Your task to perform on an android device: Search for seafood restaurants on Google Maps Image 0: 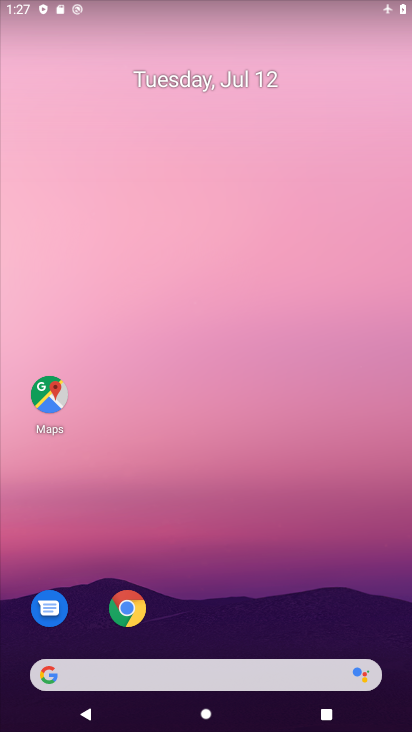
Step 0: click (45, 389)
Your task to perform on an android device: Search for seafood restaurants on Google Maps Image 1: 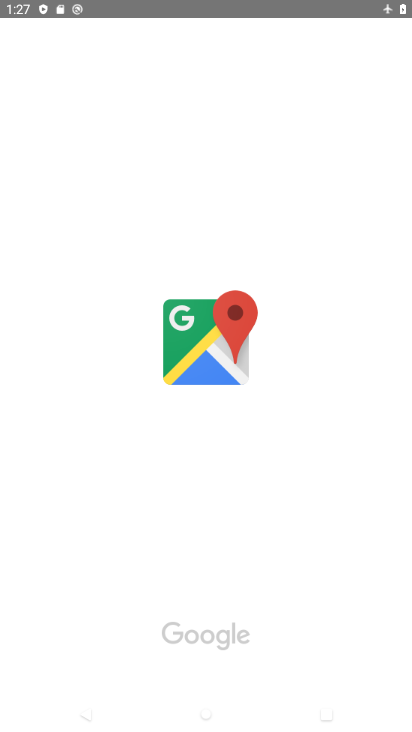
Step 1: click (46, 385)
Your task to perform on an android device: Search for seafood restaurants on Google Maps Image 2: 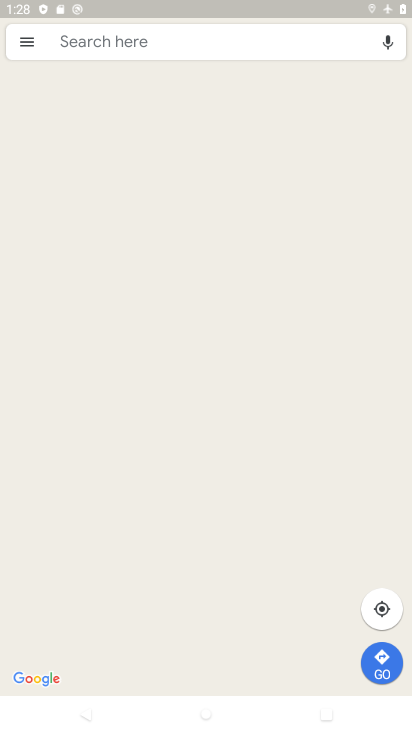
Step 2: click (22, 38)
Your task to perform on an android device: Search for seafood restaurants on Google Maps Image 3: 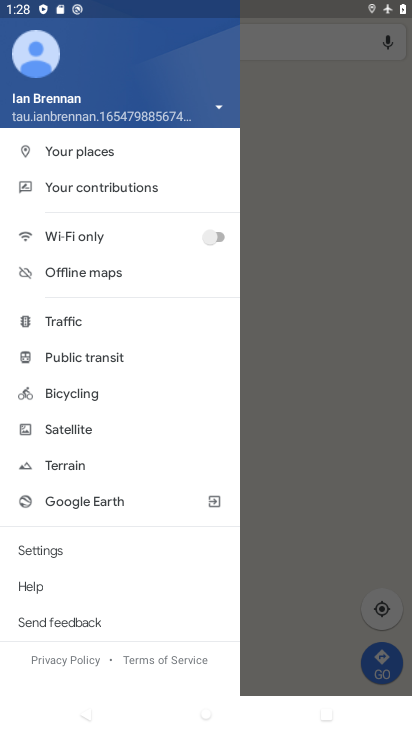
Step 3: click (338, 73)
Your task to perform on an android device: Search for seafood restaurants on Google Maps Image 4: 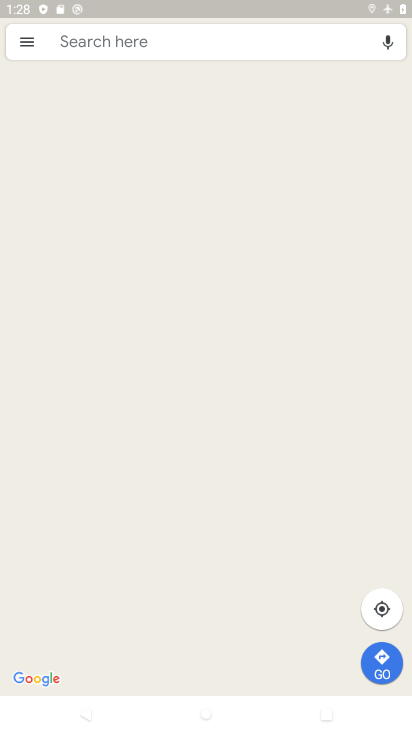
Step 4: click (301, 42)
Your task to perform on an android device: Search for seafood restaurants on Google Maps Image 5: 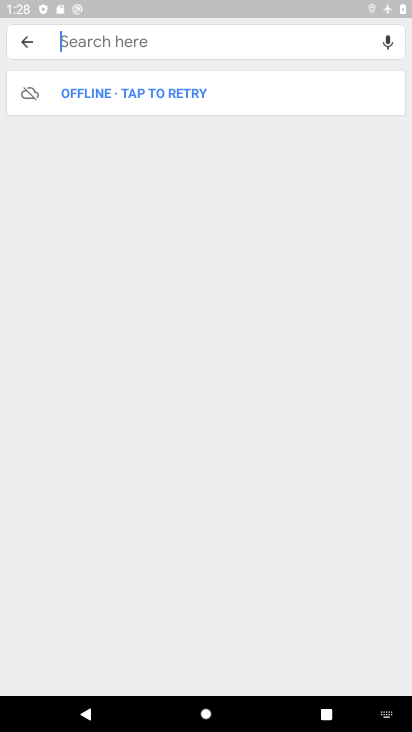
Step 5: drag from (390, 11) to (371, 619)
Your task to perform on an android device: Search for seafood restaurants on Google Maps Image 6: 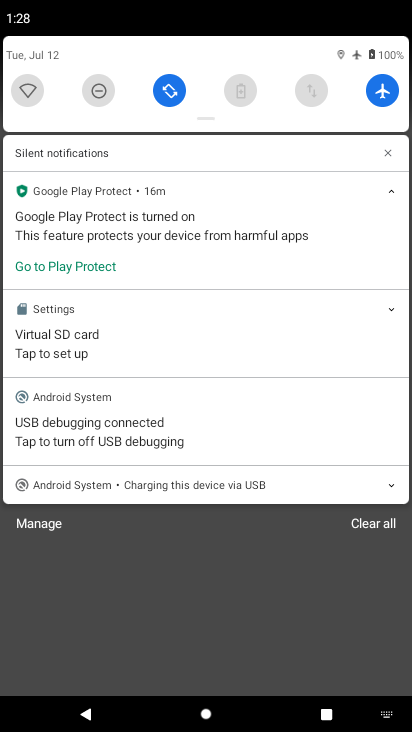
Step 6: click (378, 97)
Your task to perform on an android device: Search for seafood restaurants on Google Maps Image 7: 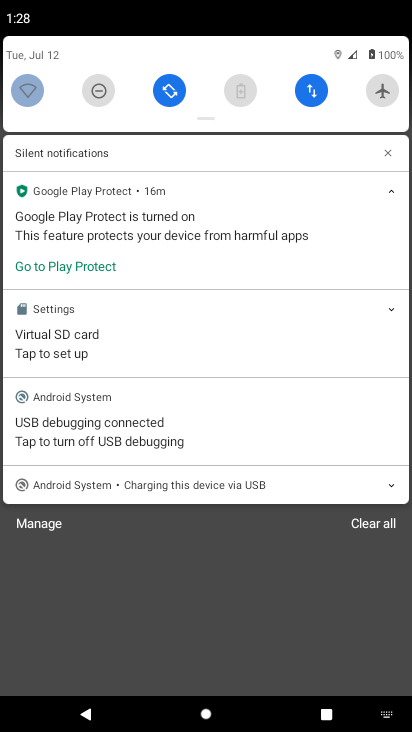
Step 7: drag from (296, 629) to (308, 8)
Your task to perform on an android device: Search for seafood restaurants on Google Maps Image 8: 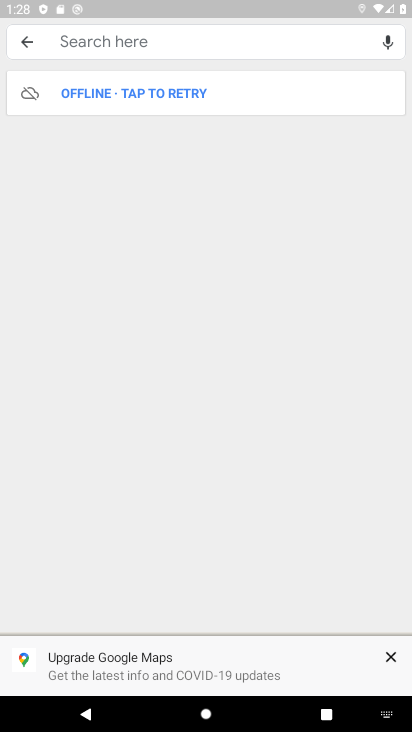
Step 8: type "seafood restaurant"
Your task to perform on an android device: Search for seafood restaurants on Google Maps Image 9: 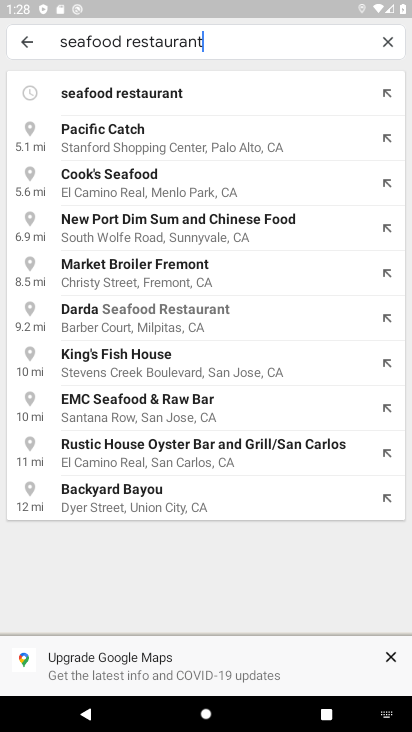
Step 9: click (181, 87)
Your task to perform on an android device: Search for seafood restaurants on Google Maps Image 10: 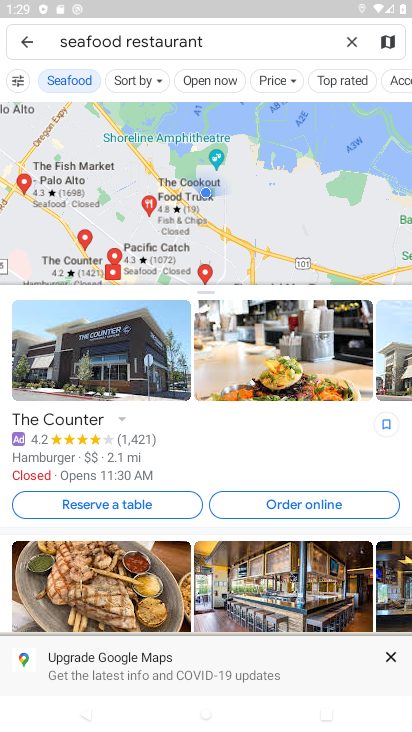
Step 10: task complete